Your task to perform on an android device: Open Google Chrome Image 0: 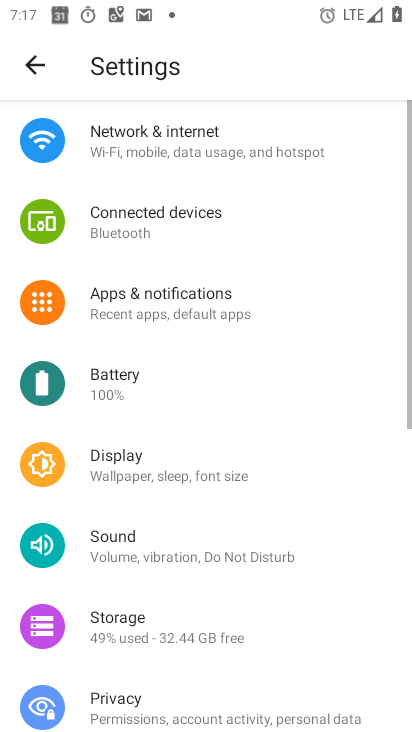
Step 0: press home button
Your task to perform on an android device: Open Google Chrome Image 1: 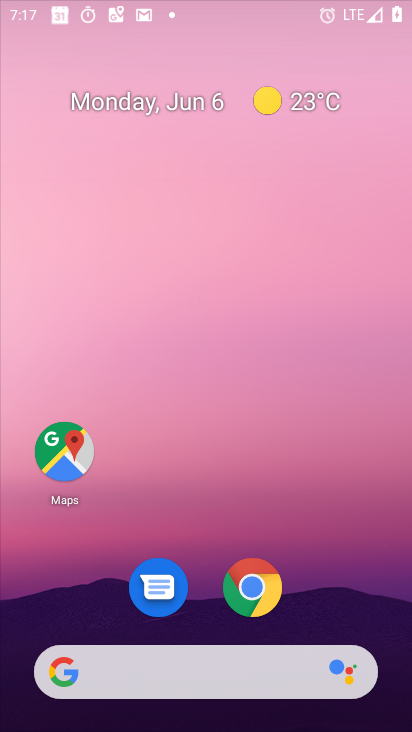
Step 1: drag from (402, 643) to (262, 25)
Your task to perform on an android device: Open Google Chrome Image 2: 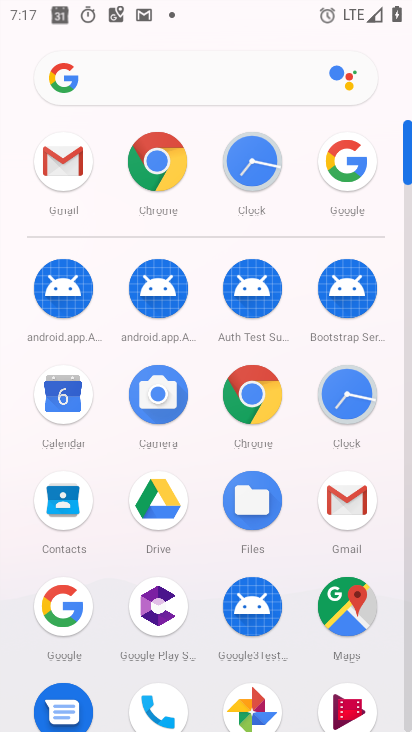
Step 2: click (259, 398)
Your task to perform on an android device: Open Google Chrome Image 3: 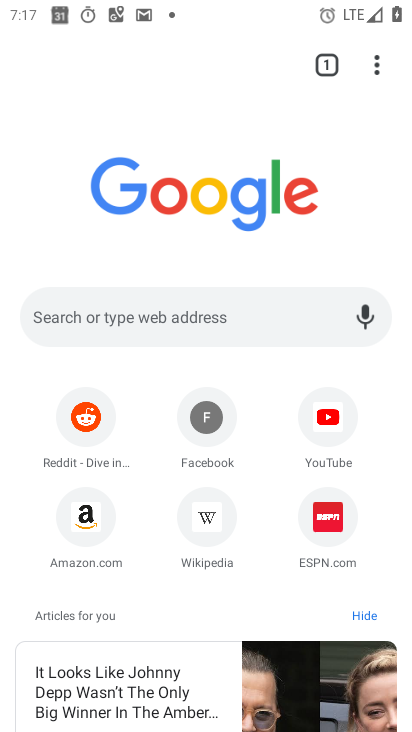
Step 3: task complete